Your task to perform on an android device: change the clock display to digital Image 0: 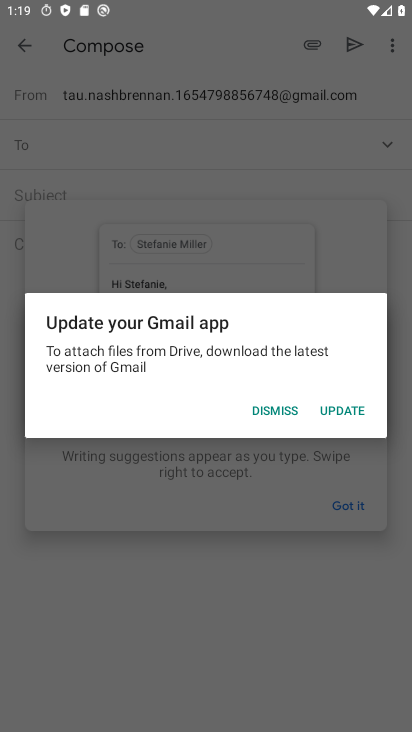
Step 0: press home button
Your task to perform on an android device: change the clock display to digital Image 1: 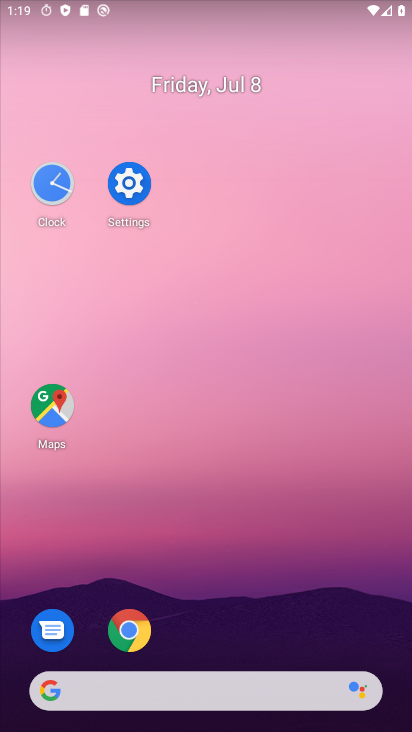
Step 1: click (55, 195)
Your task to perform on an android device: change the clock display to digital Image 2: 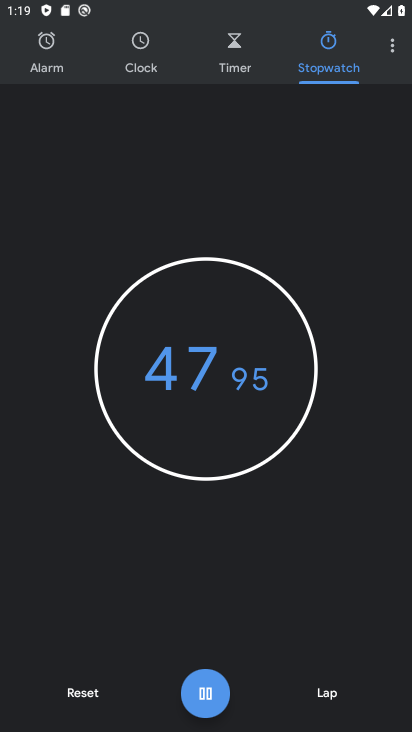
Step 2: click (382, 52)
Your task to perform on an android device: change the clock display to digital Image 3: 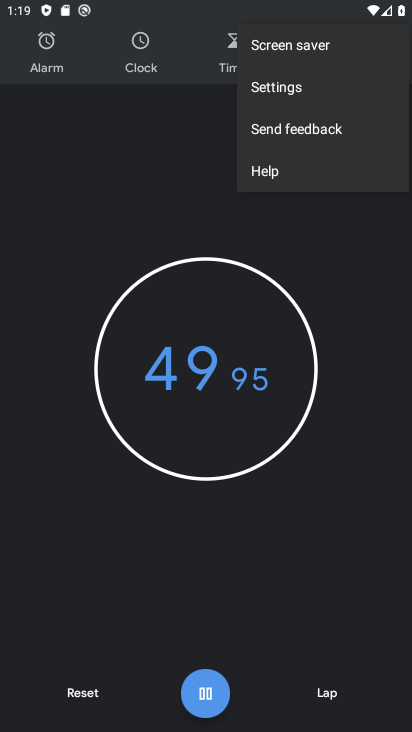
Step 3: click (330, 94)
Your task to perform on an android device: change the clock display to digital Image 4: 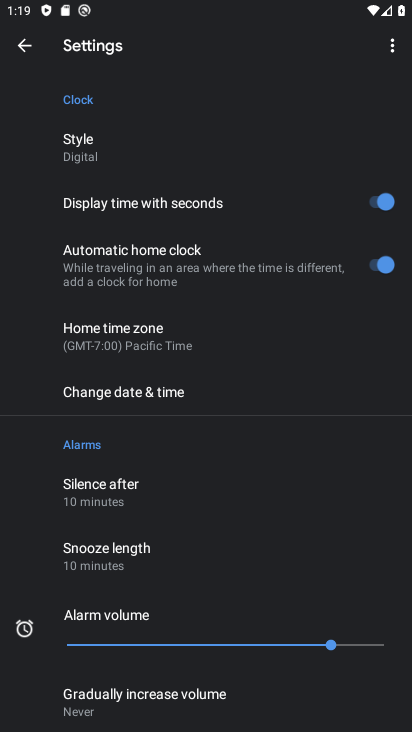
Step 4: click (202, 162)
Your task to perform on an android device: change the clock display to digital Image 5: 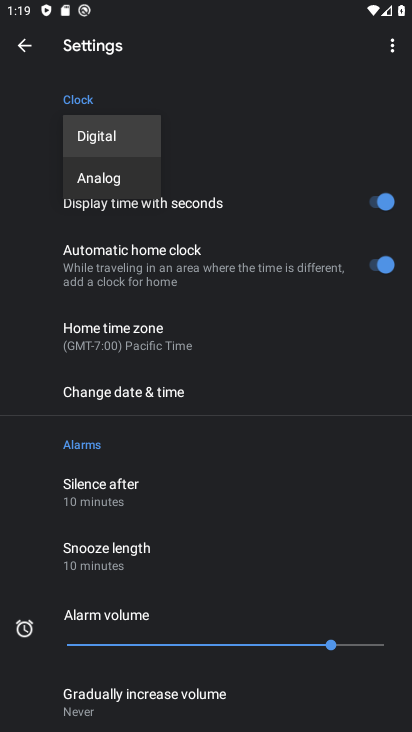
Step 5: task complete